Your task to perform on an android device: Check the weather Image 0: 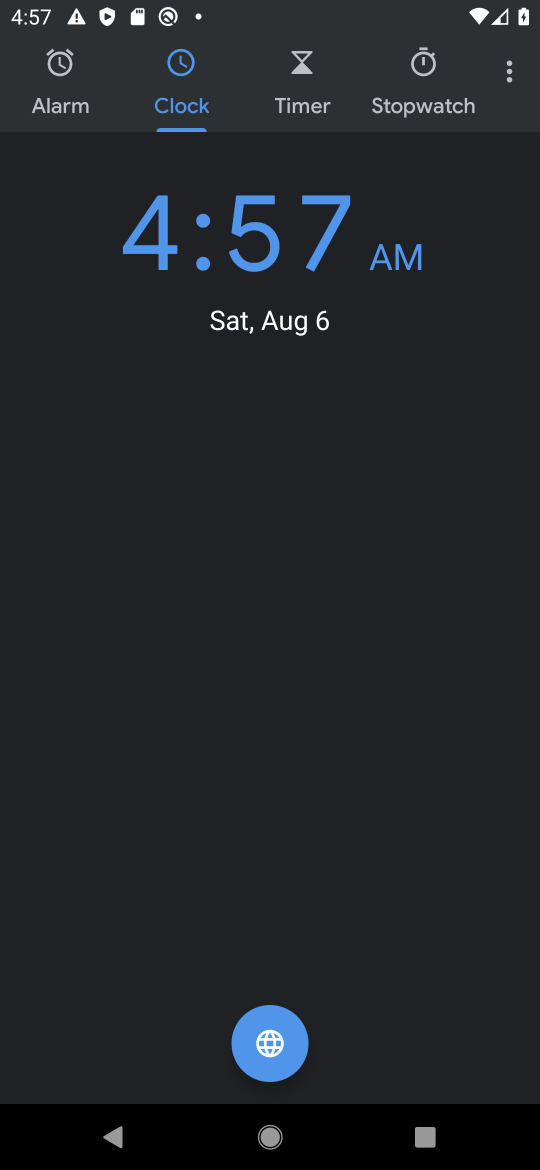
Step 0: press home button
Your task to perform on an android device: Check the weather Image 1: 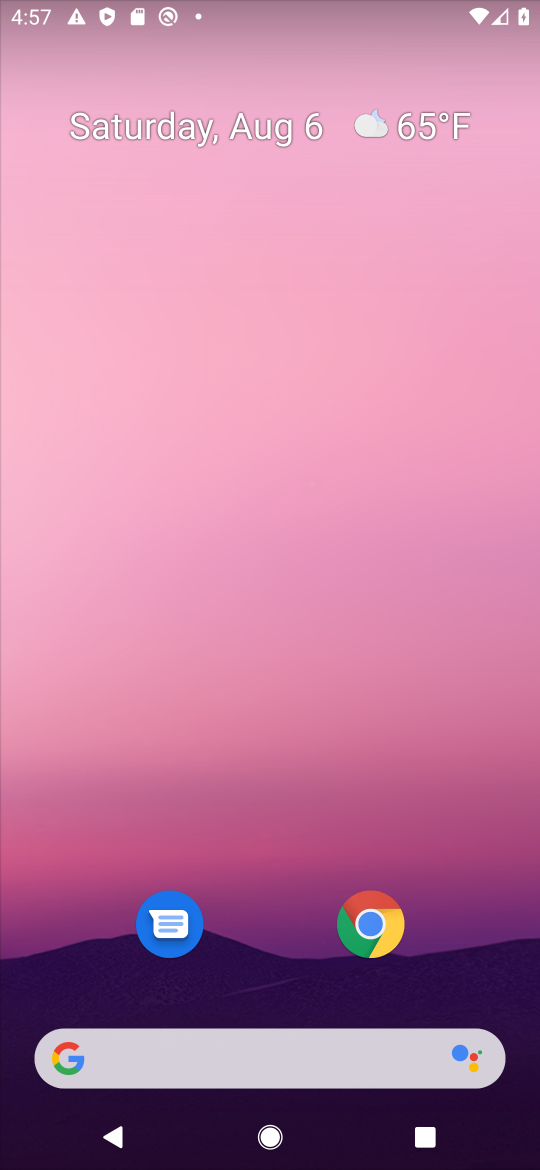
Step 1: click (269, 1044)
Your task to perform on an android device: Check the weather Image 2: 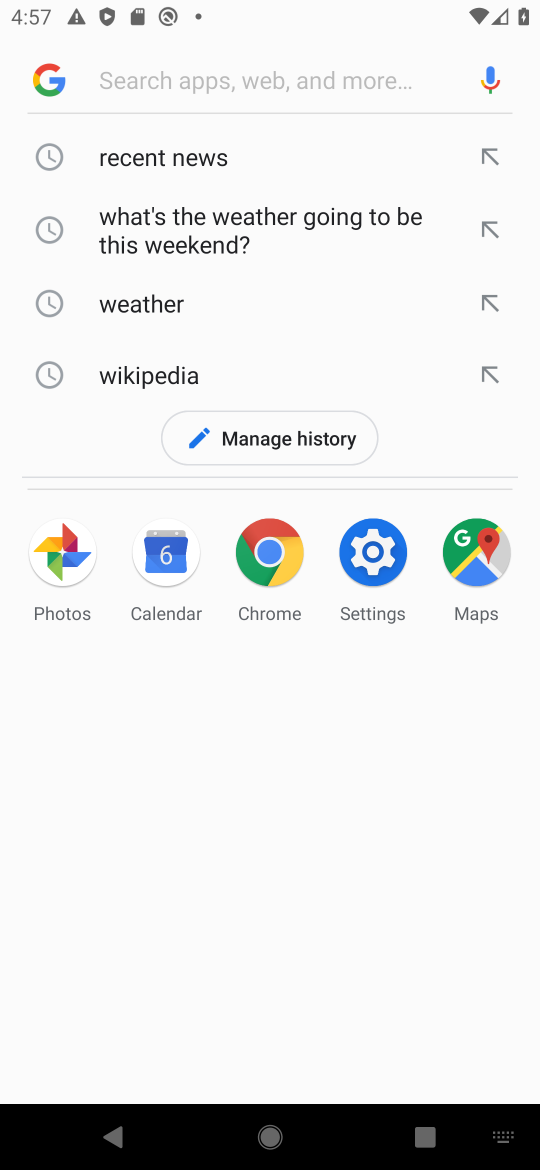
Step 2: type "weather "
Your task to perform on an android device: Check the weather Image 3: 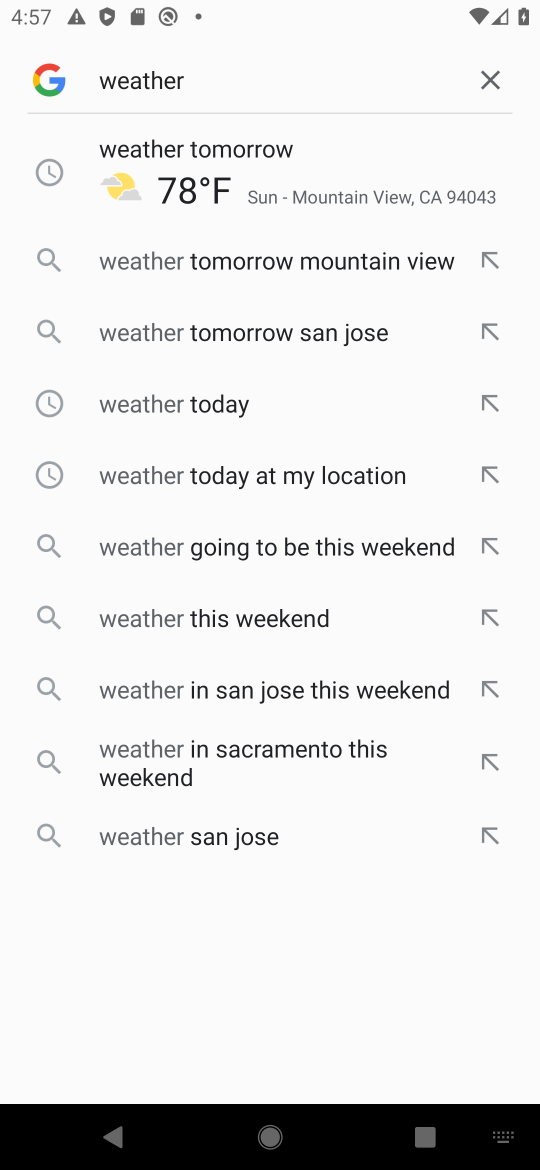
Step 3: press enter
Your task to perform on an android device: Check the weather Image 4: 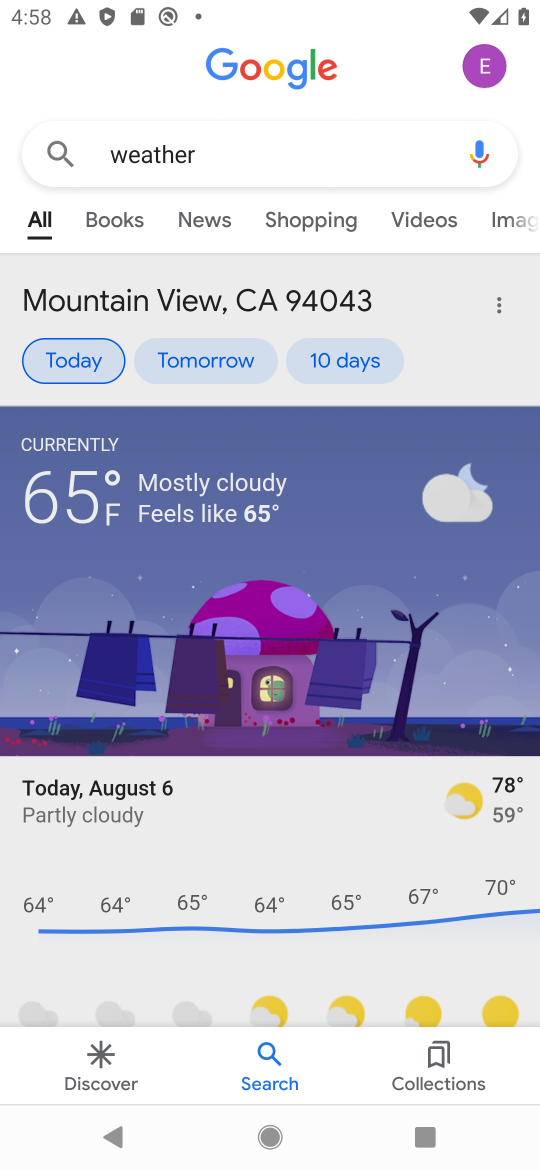
Step 4: task complete